Your task to perform on an android device: Search for razer blade on newegg.com, select the first entry, add it to the cart, then select checkout. Image 0: 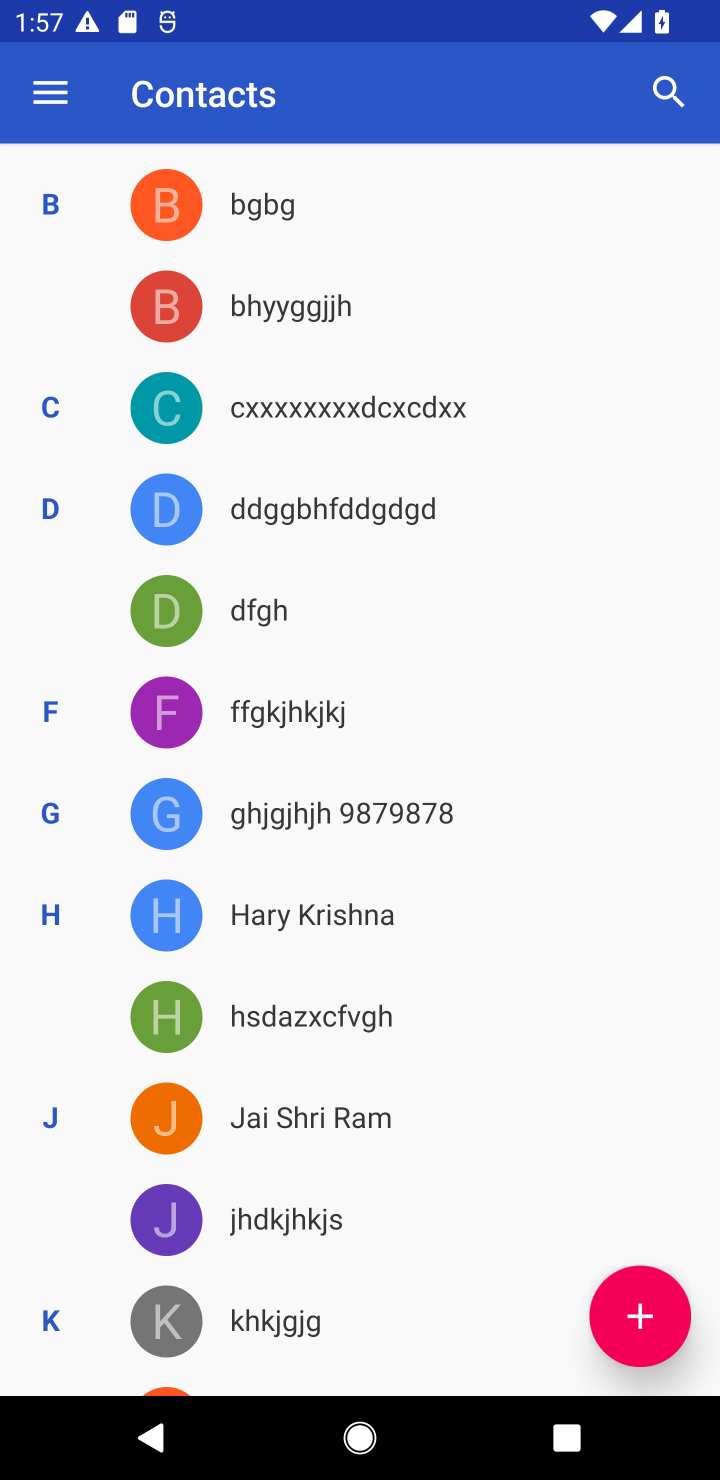
Step 0: press home button
Your task to perform on an android device: Search for razer blade on newegg.com, select the first entry, add it to the cart, then select checkout. Image 1: 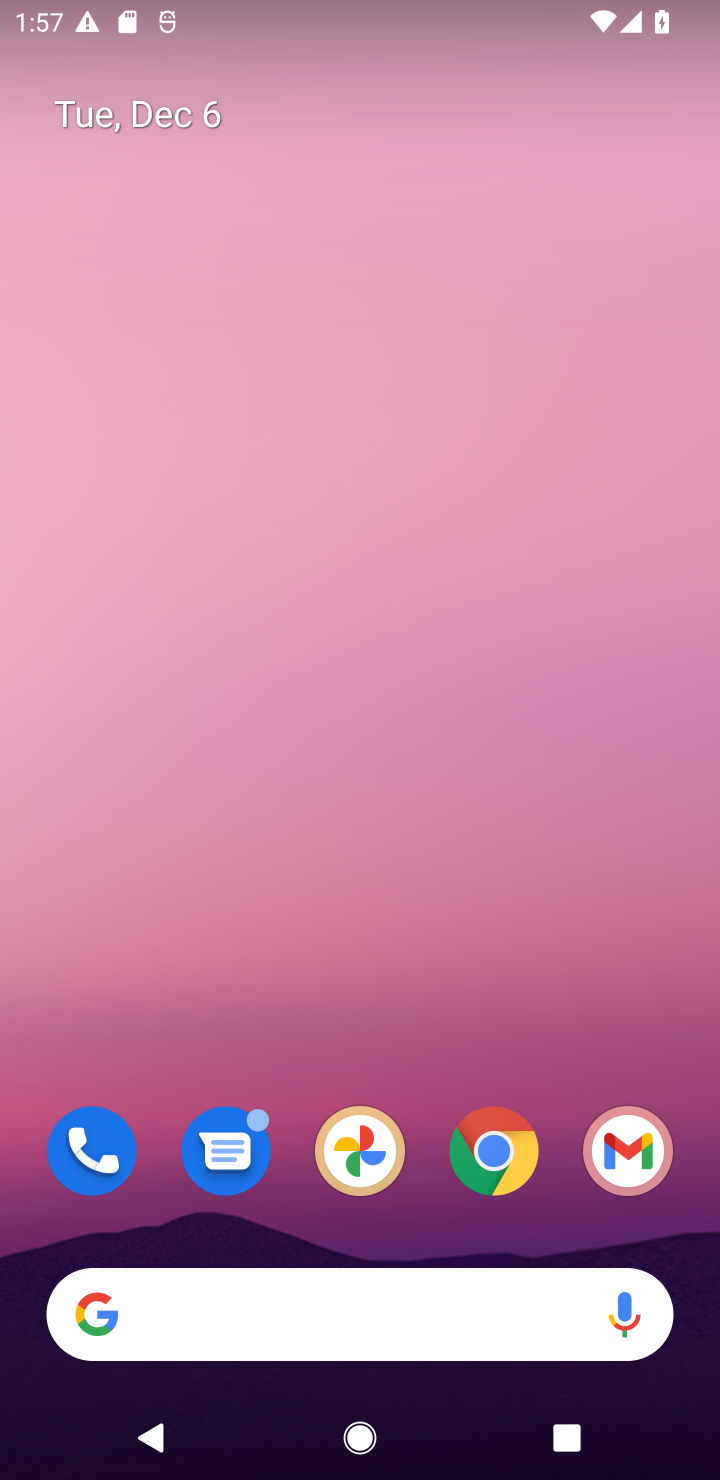
Step 1: click (509, 1155)
Your task to perform on an android device: Search for razer blade on newegg.com, select the first entry, add it to the cart, then select checkout. Image 2: 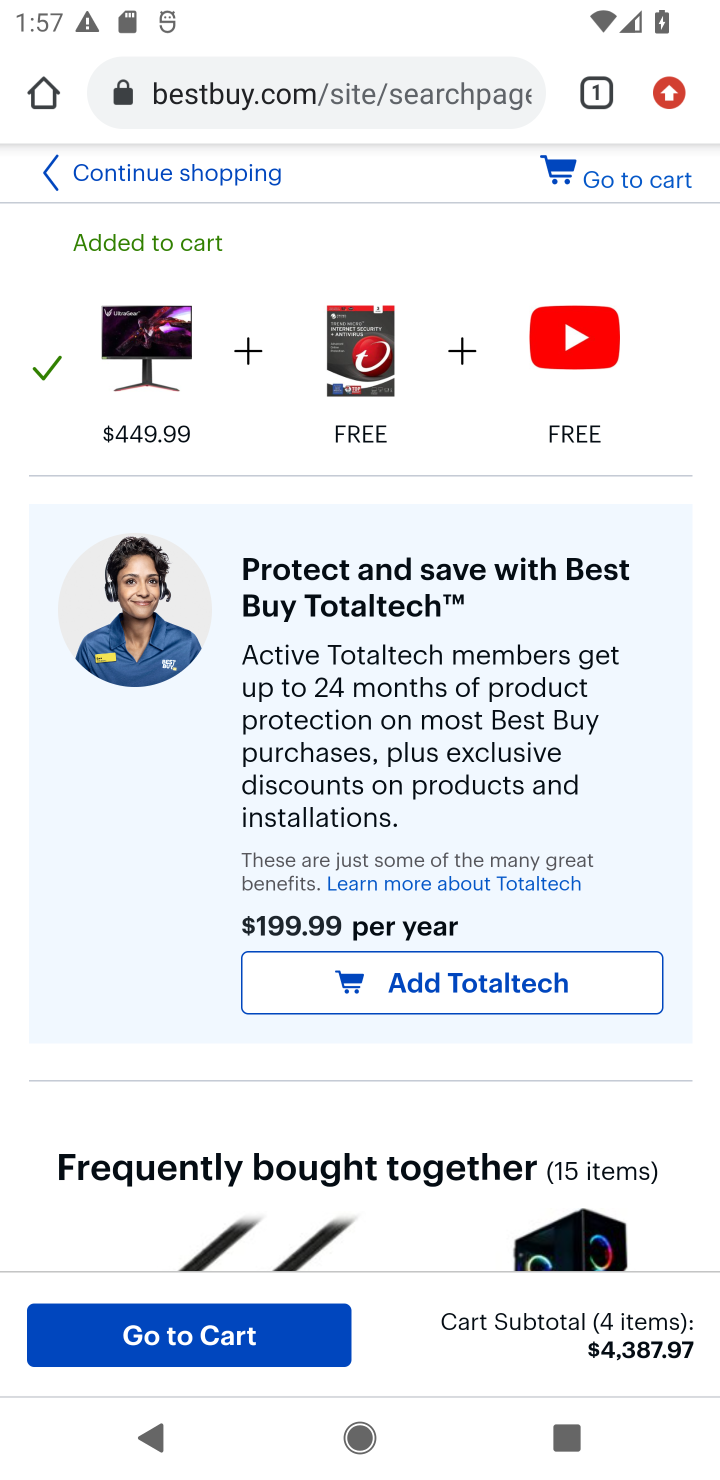
Step 2: click (313, 148)
Your task to perform on an android device: Search for razer blade on newegg.com, select the first entry, add it to the cart, then select checkout. Image 3: 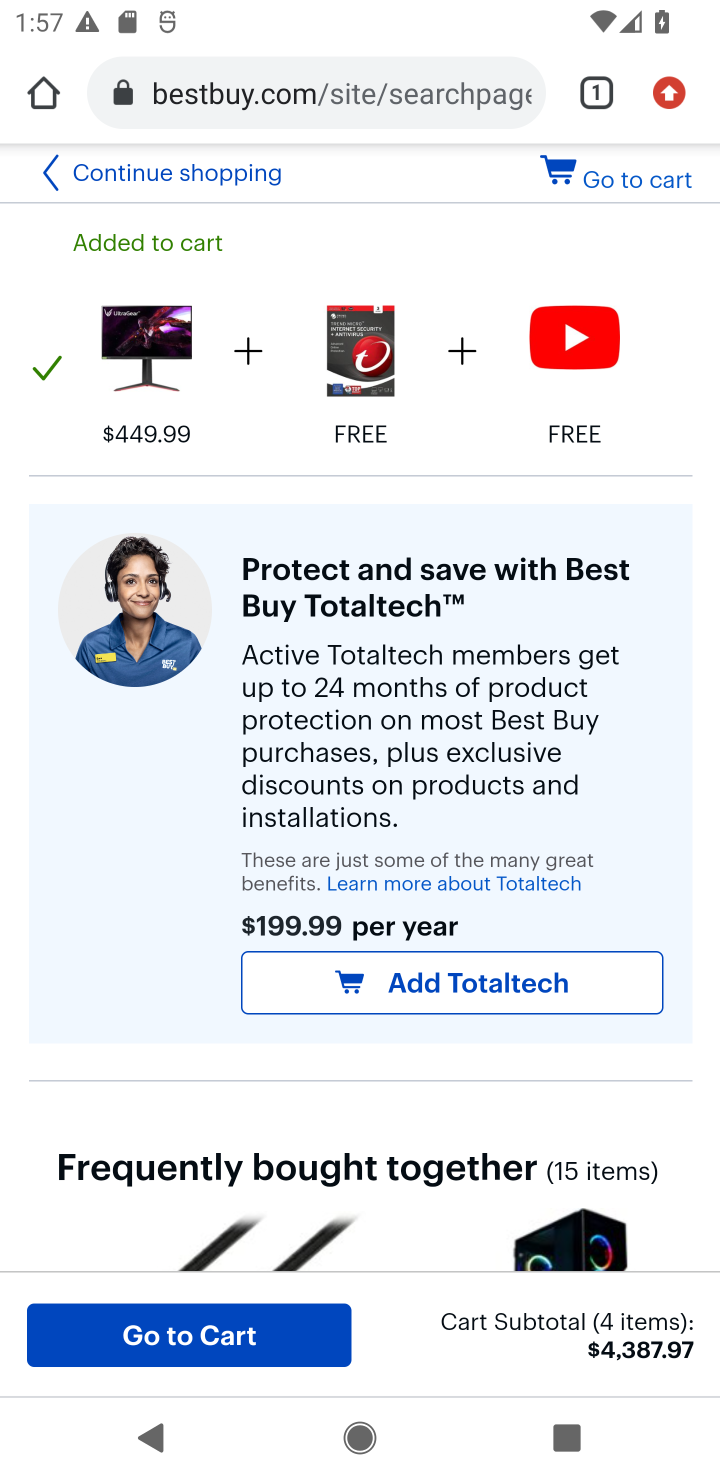
Step 3: click (284, 91)
Your task to perform on an android device: Search for razer blade on newegg.com, select the first entry, add it to the cart, then select checkout. Image 4: 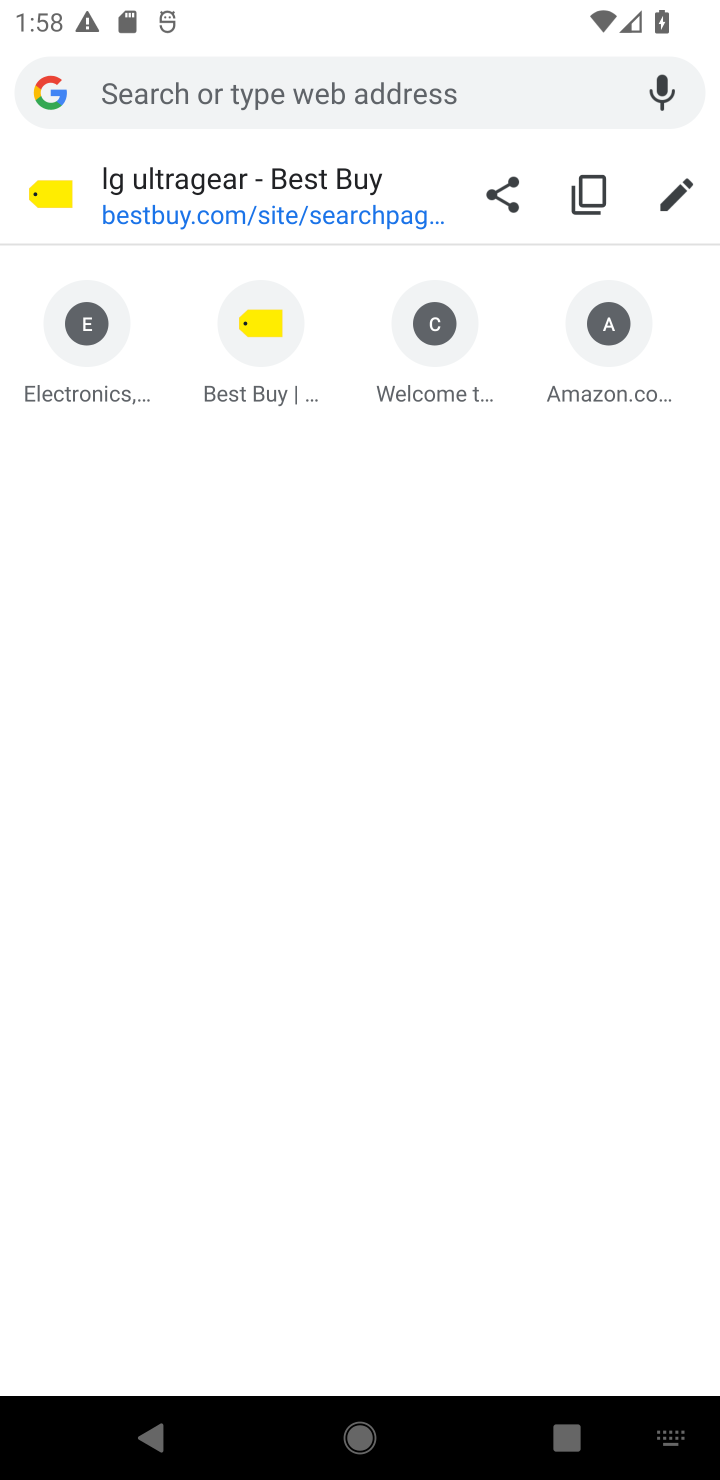
Step 4: type "newegg.com"
Your task to perform on an android device: Search for razer blade on newegg.com, select the first entry, add it to the cart, then select checkout. Image 5: 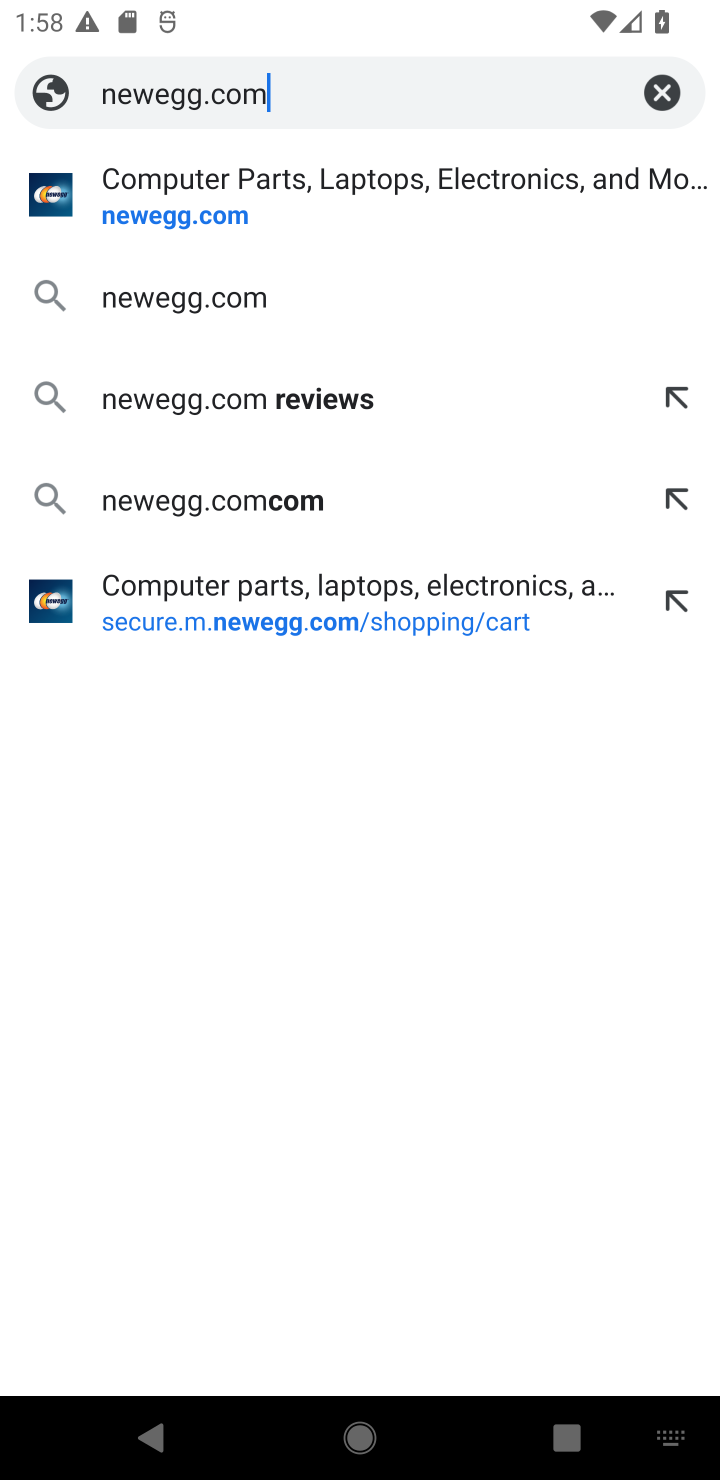
Step 5: click (184, 204)
Your task to perform on an android device: Search for razer blade on newegg.com, select the first entry, add it to the cart, then select checkout. Image 6: 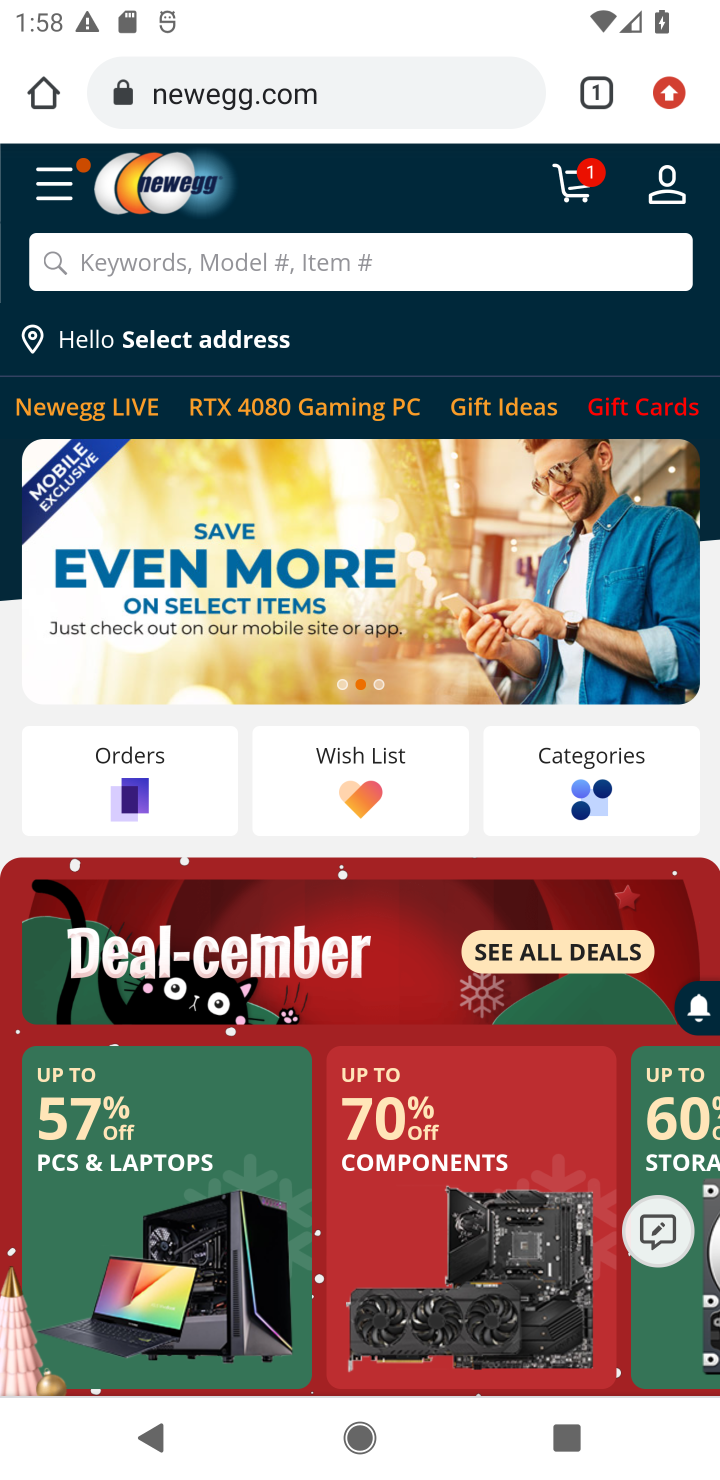
Step 6: click (185, 261)
Your task to perform on an android device: Search for razer blade on newegg.com, select the first entry, add it to the cart, then select checkout. Image 7: 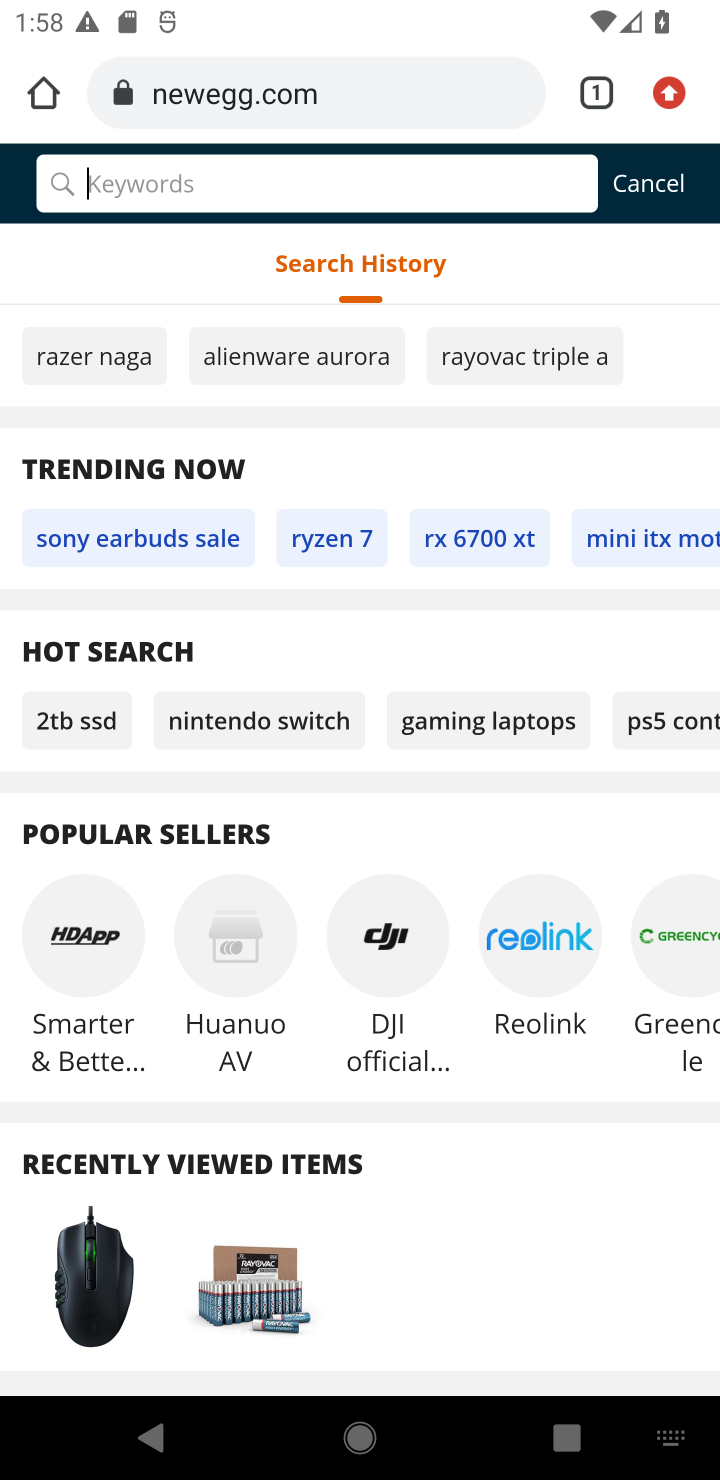
Step 7: type " razer blade"
Your task to perform on an android device: Search for razer blade on newegg.com, select the first entry, add it to the cart, then select checkout. Image 8: 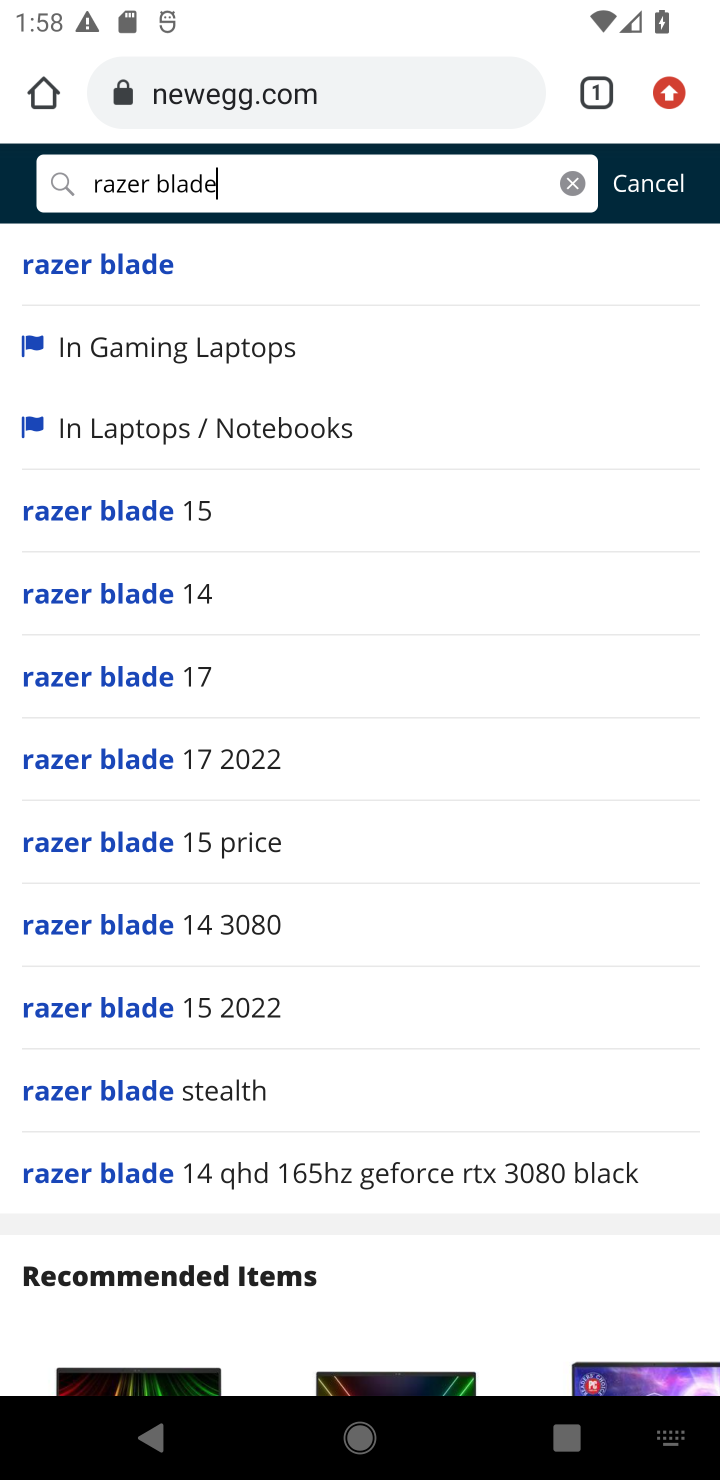
Step 8: click (87, 275)
Your task to perform on an android device: Search for razer blade on newegg.com, select the first entry, add it to the cart, then select checkout. Image 9: 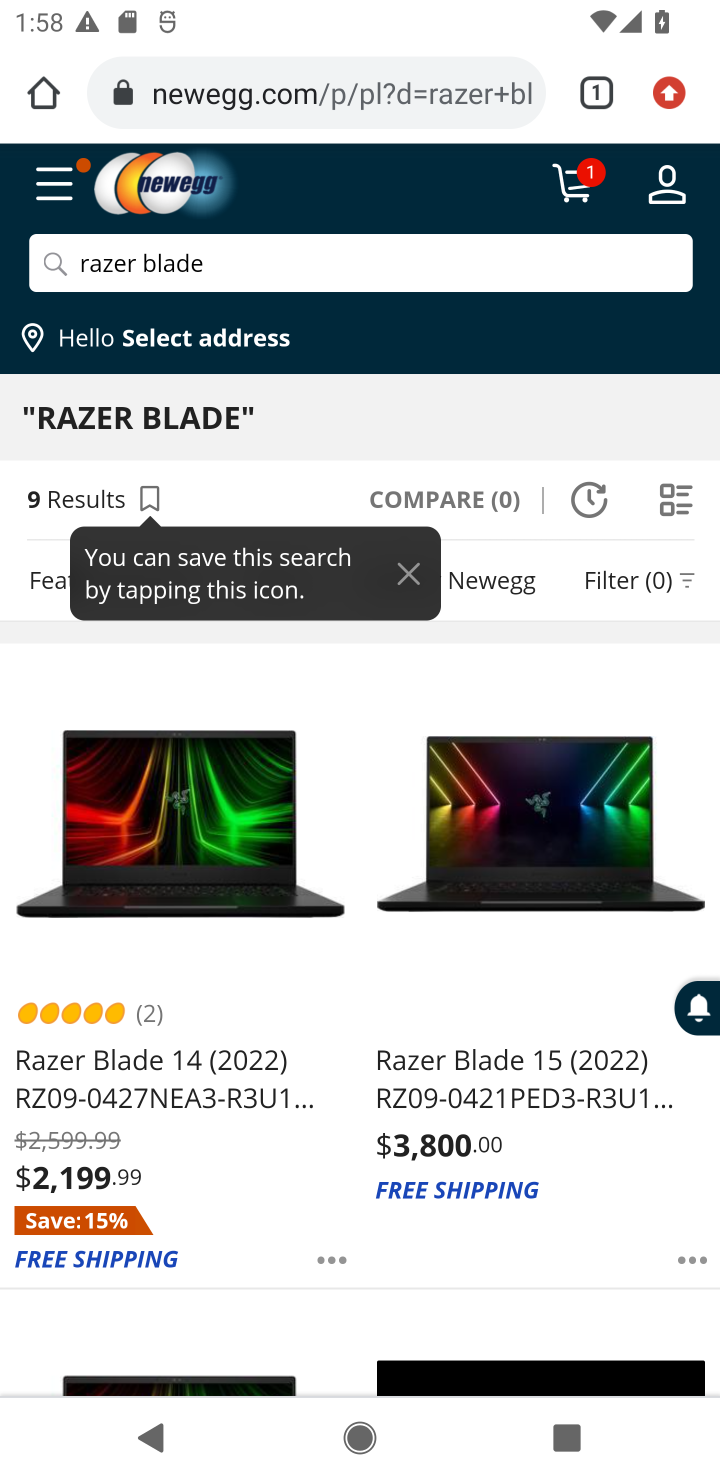
Step 9: click (140, 1084)
Your task to perform on an android device: Search for razer blade on newegg.com, select the first entry, add it to the cart, then select checkout. Image 10: 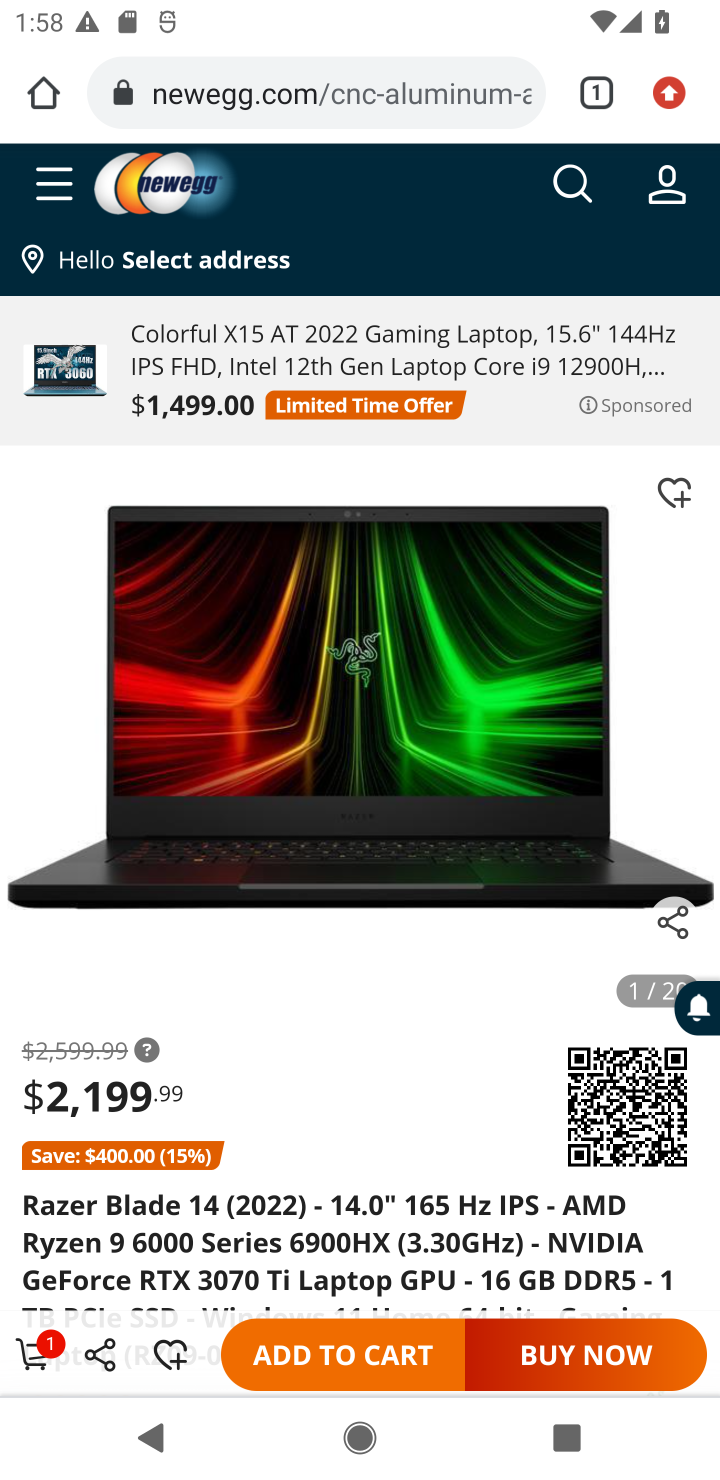
Step 10: click (317, 1348)
Your task to perform on an android device: Search for razer blade on newegg.com, select the first entry, add it to the cart, then select checkout. Image 11: 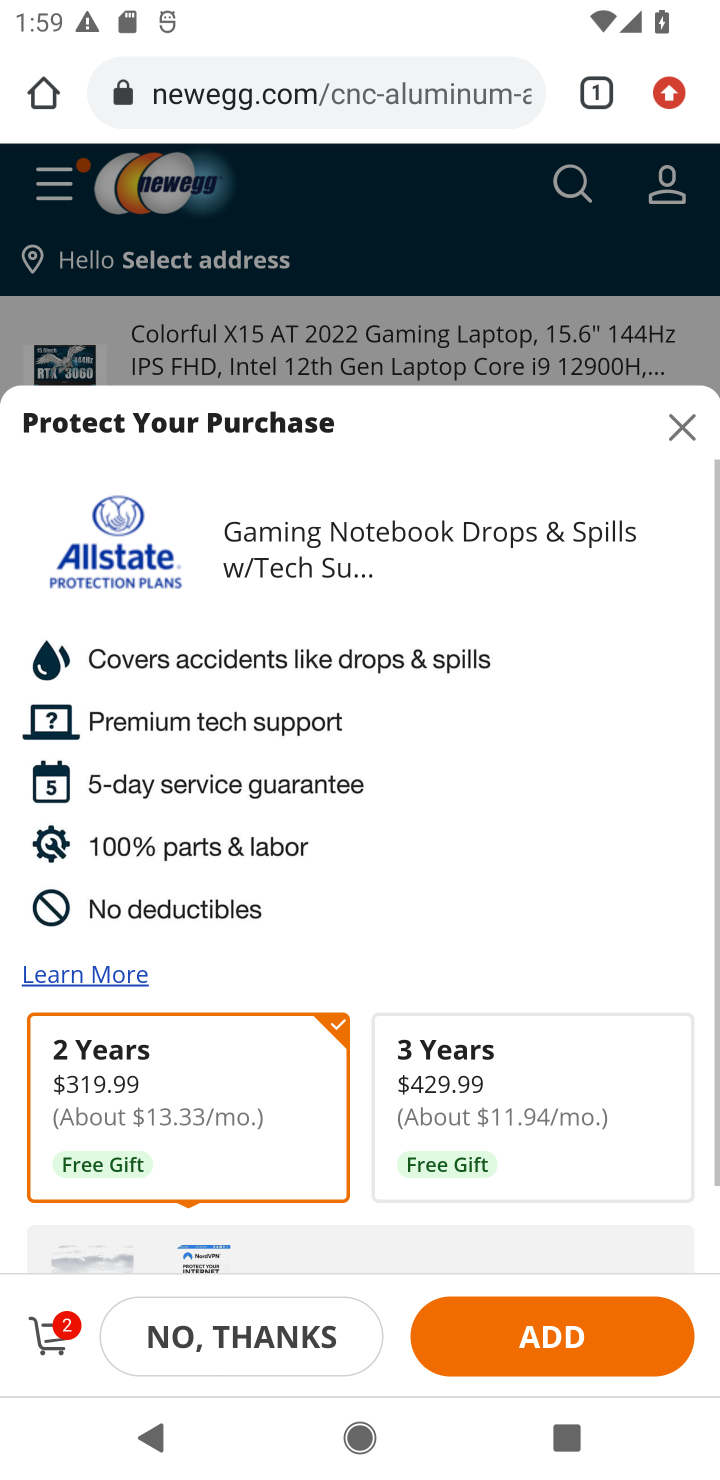
Step 11: click (58, 1343)
Your task to perform on an android device: Search for razer blade on newegg.com, select the first entry, add it to the cart, then select checkout. Image 12: 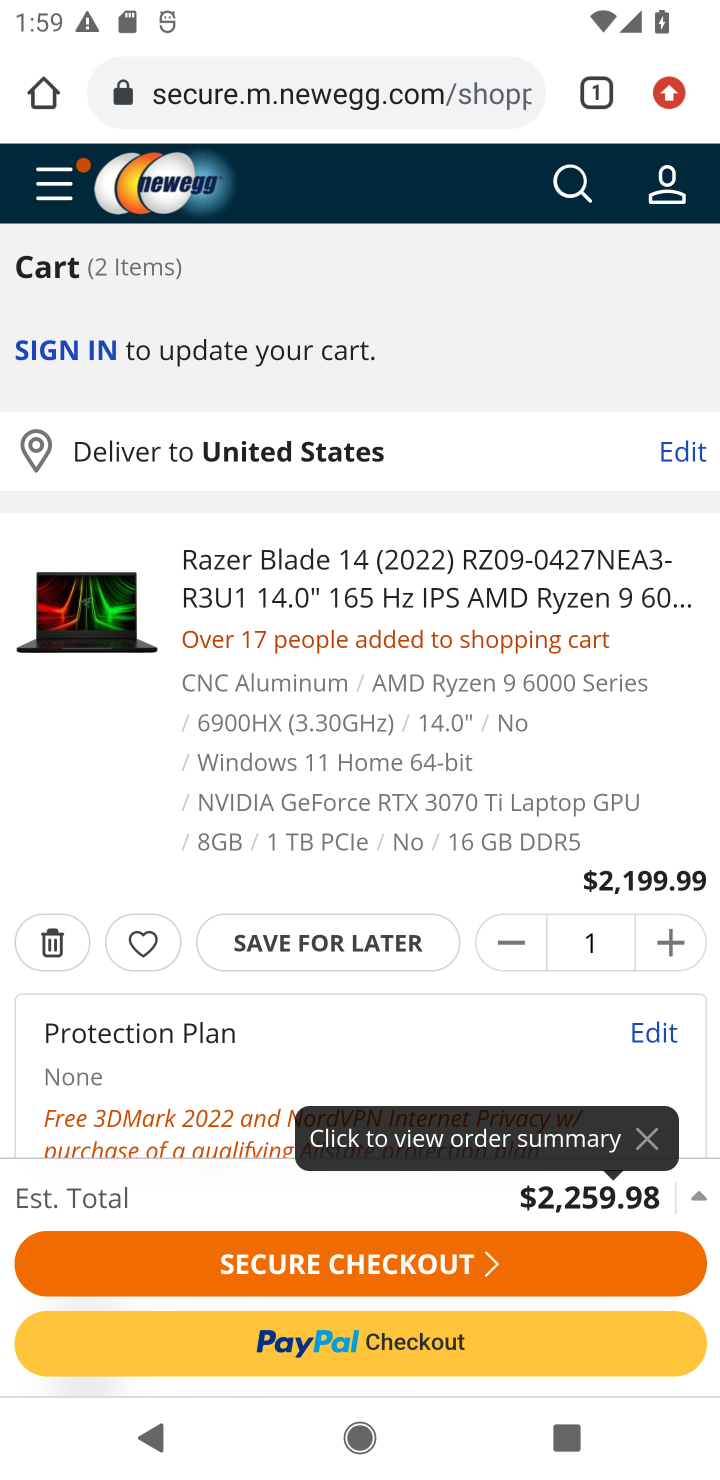
Step 12: click (341, 1269)
Your task to perform on an android device: Search for razer blade on newegg.com, select the first entry, add it to the cart, then select checkout. Image 13: 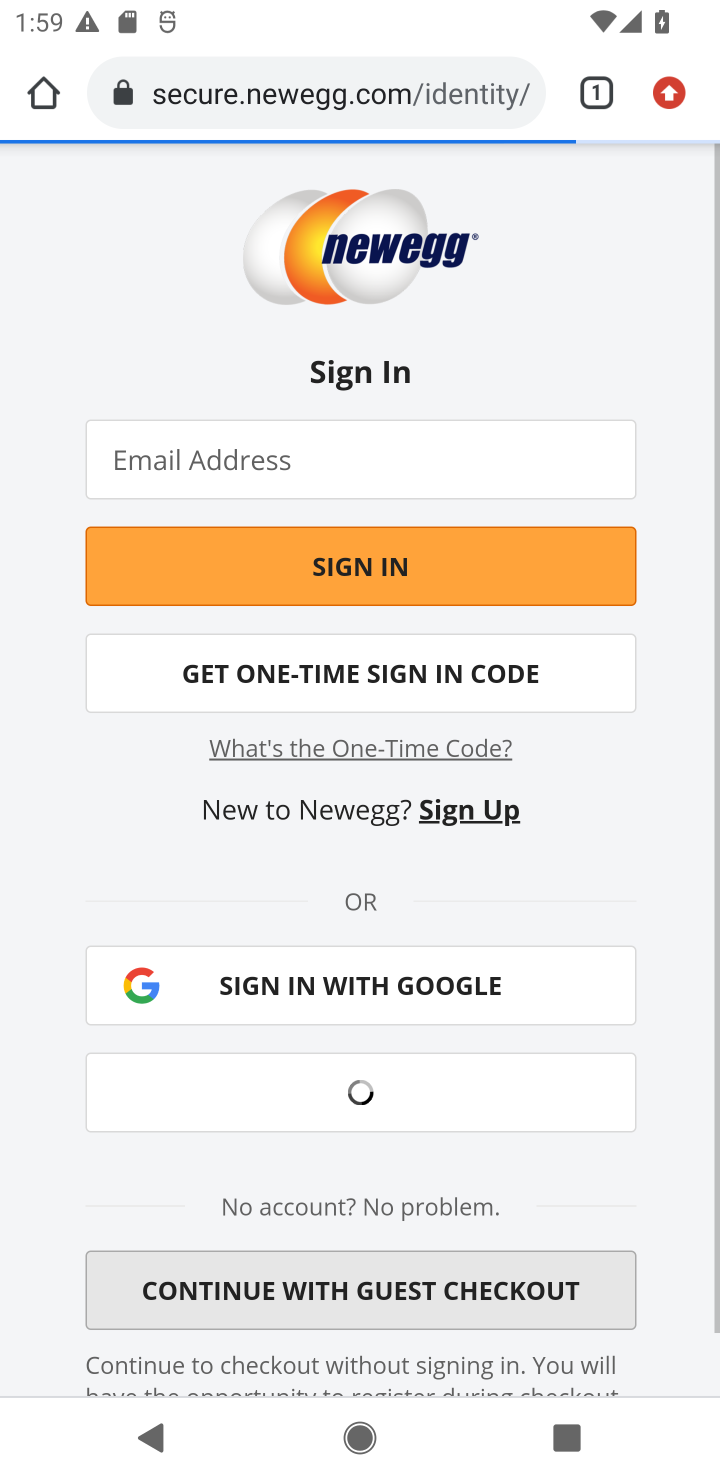
Step 13: click (341, 1269)
Your task to perform on an android device: Search for razer blade on newegg.com, select the first entry, add it to the cart, then select checkout. Image 14: 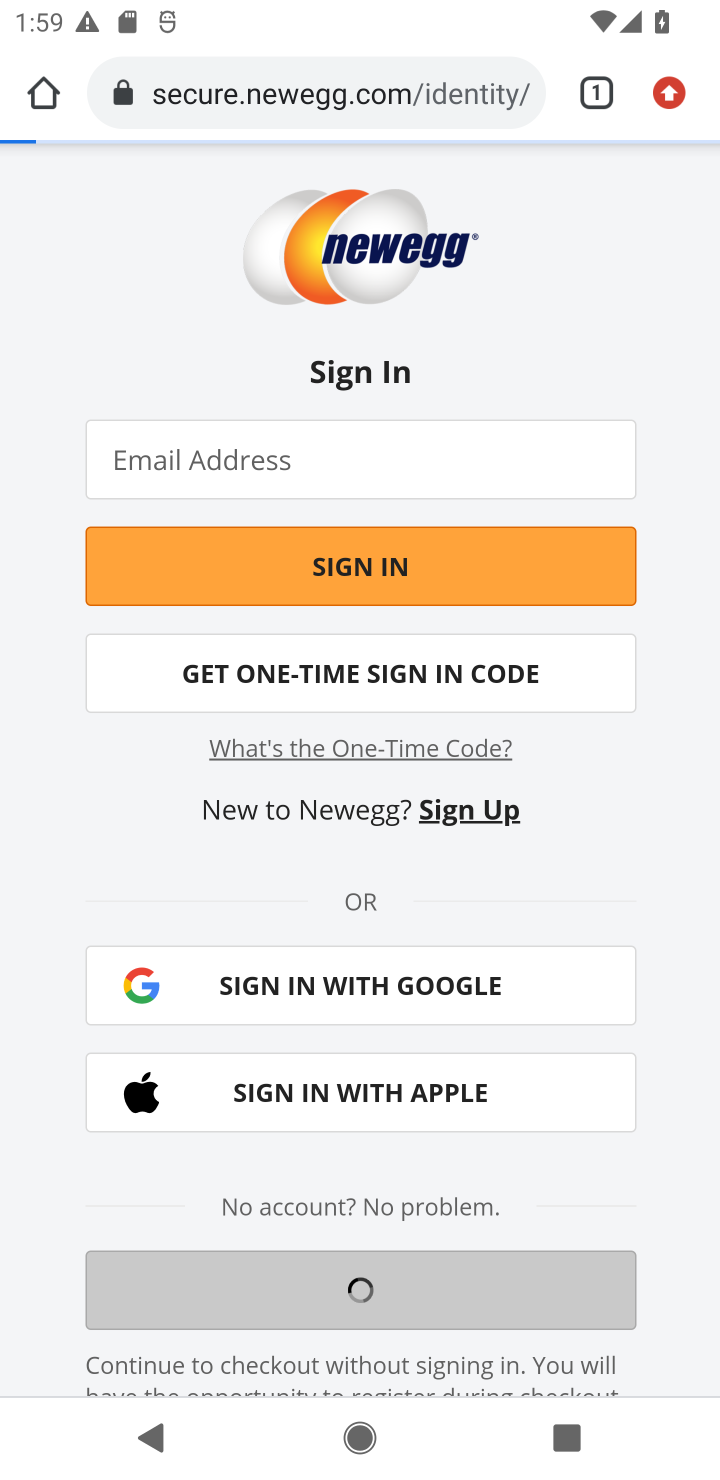
Step 14: task complete